Your task to perform on an android device: find snoozed emails in the gmail app Image 0: 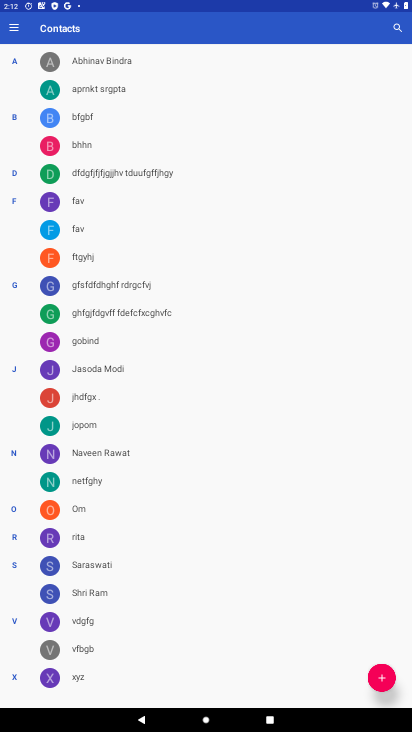
Step 0: press home button
Your task to perform on an android device: find snoozed emails in the gmail app Image 1: 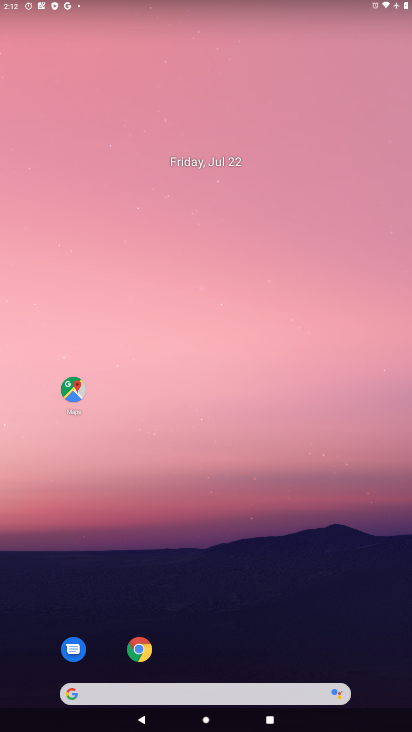
Step 1: drag from (247, 604) to (264, 163)
Your task to perform on an android device: find snoozed emails in the gmail app Image 2: 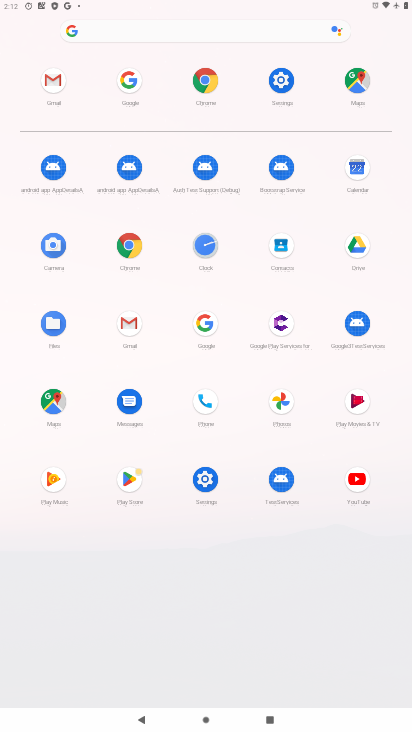
Step 2: click (128, 325)
Your task to perform on an android device: find snoozed emails in the gmail app Image 3: 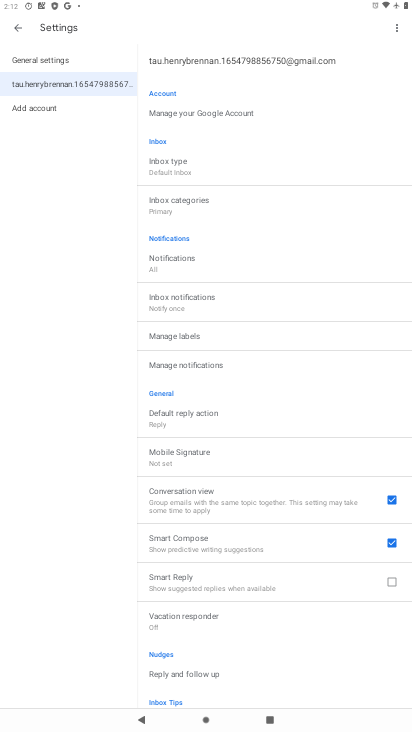
Step 3: click (10, 28)
Your task to perform on an android device: find snoozed emails in the gmail app Image 4: 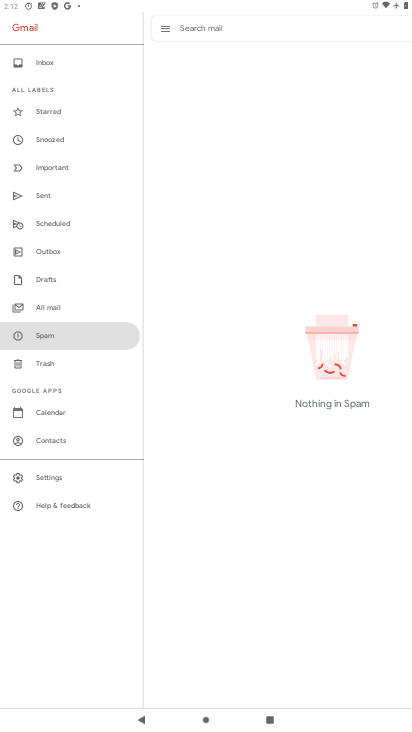
Step 4: click (58, 140)
Your task to perform on an android device: find snoozed emails in the gmail app Image 5: 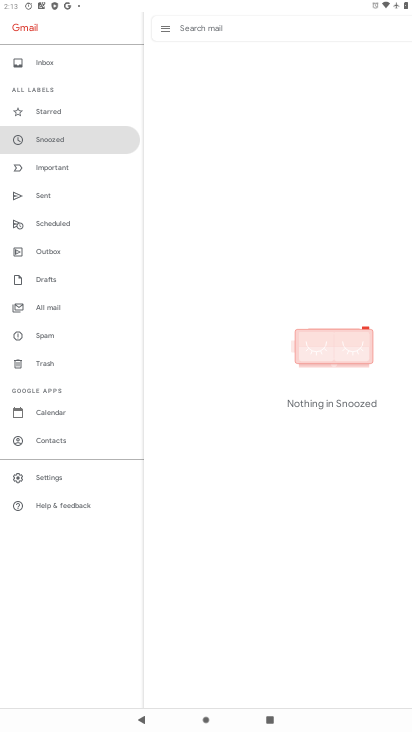
Step 5: task complete